Your task to perform on an android device: When is my next appointment? Image 0: 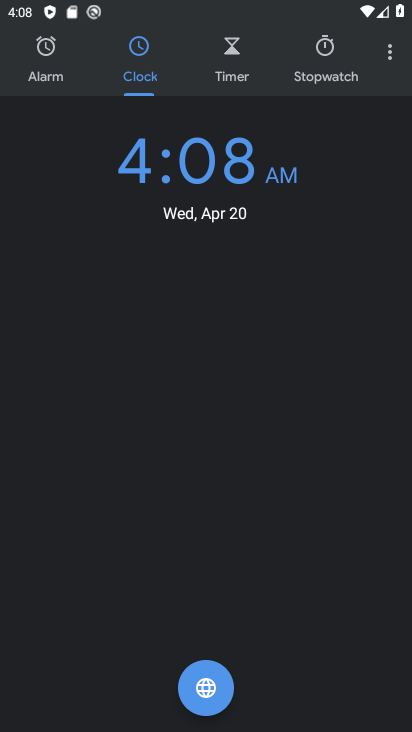
Step 0: press home button
Your task to perform on an android device: When is my next appointment? Image 1: 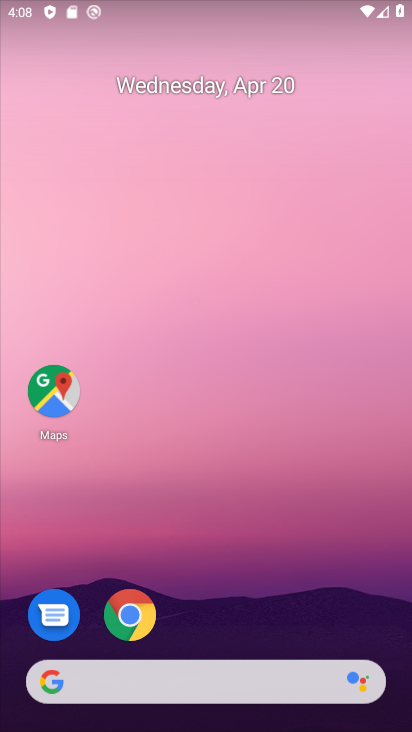
Step 1: drag from (308, 587) to (206, 50)
Your task to perform on an android device: When is my next appointment? Image 2: 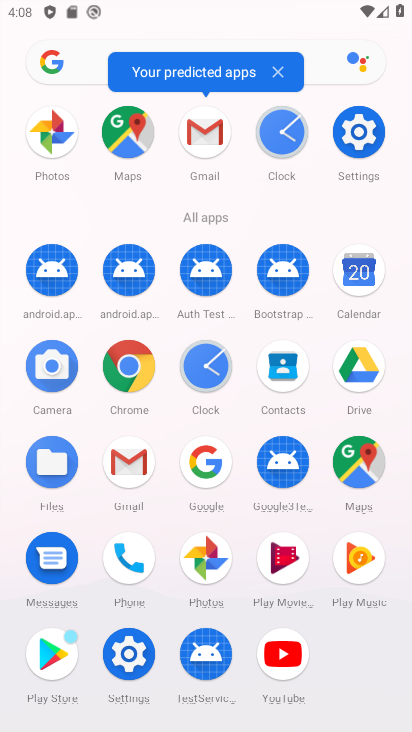
Step 2: click (338, 276)
Your task to perform on an android device: When is my next appointment? Image 3: 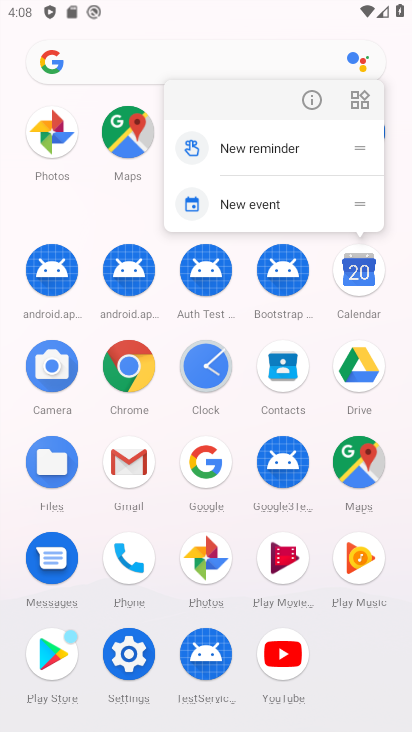
Step 3: click (359, 268)
Your task to perform on an android device: When is my next appointment? Image 4: 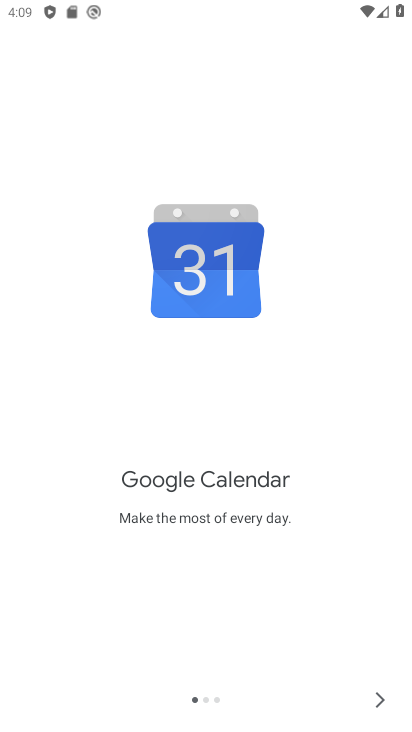
Step 4: click (372, 696)
Your task to perform on an android device: When is my next appointment? Image 5: 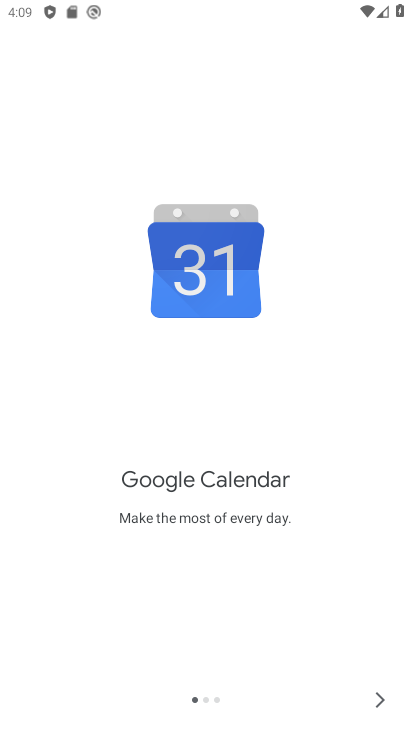
Step 5: click (372, 696)
Your task to perform on an android device: When is my next appointment? Image 6: 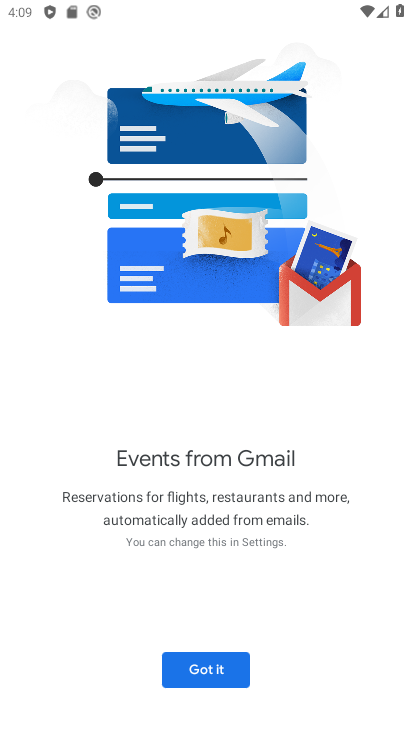
Step 6: click (372, 696)
Your task to perform on an android device: When is my next appointment? Image 7: 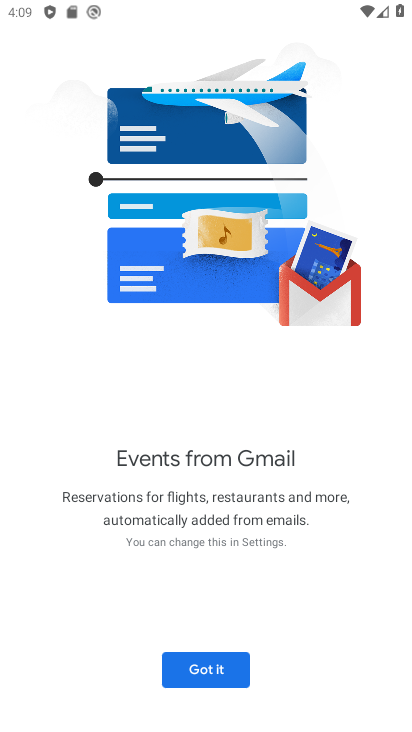
Step 7: click (197, 678)
Your task to perform on an android device: When is my next appointment? Image 8: 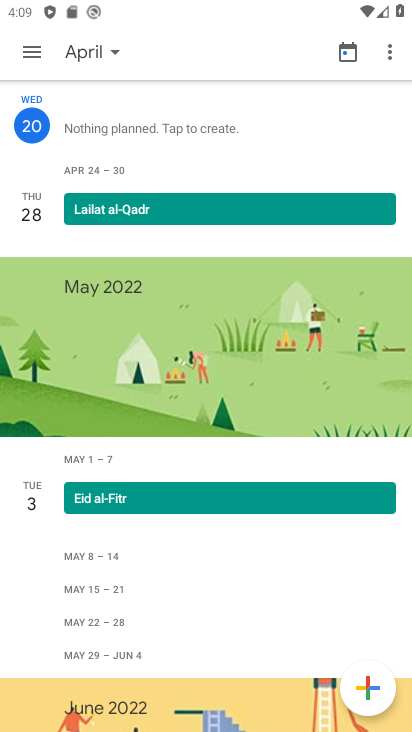
Step 8: task complete